Your task to perform on an android device: create a new album in the google photos Image 0: 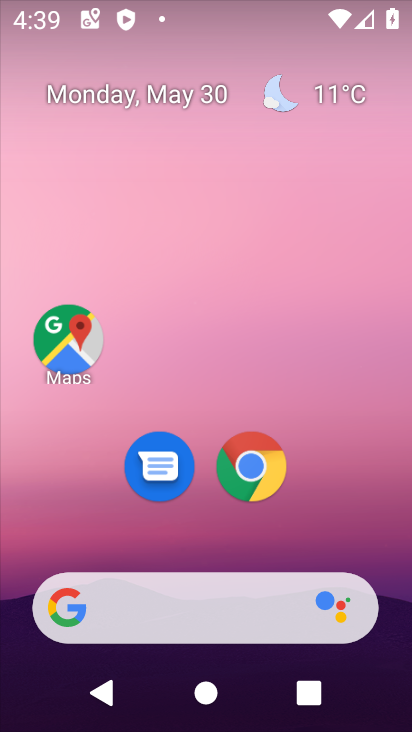
Step 0: drag from (349, 513) to (293, 78)
Your task to perform on an android device: create a new album in the google photos Image 1: 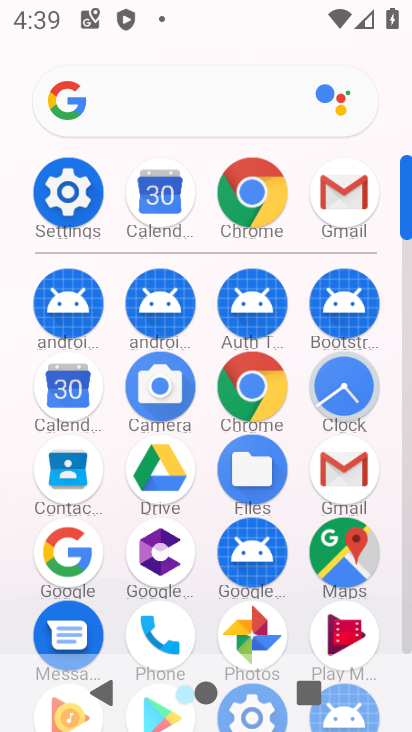
Step 1: click (261, 624)
Your task to perform on an android device: create a new album in the google photos Image 2: 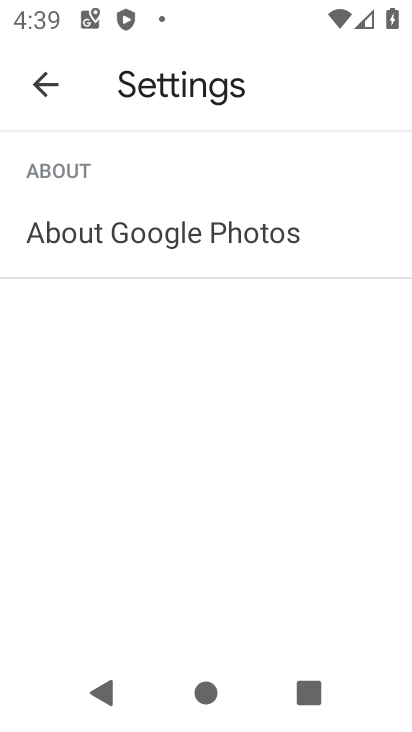
Step 2: click (60, 77)
Your task to perform on an android device: create a new album in the google photos Image 3: 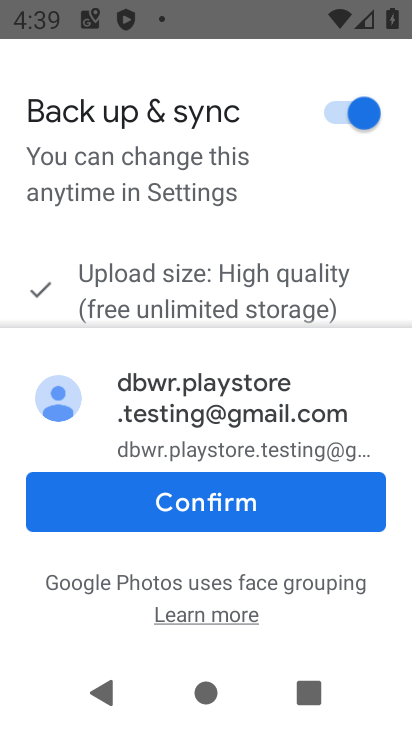
Step 3: click (248, 515)
Your task to perform on an android device: create a new album in the google photos Image 4: 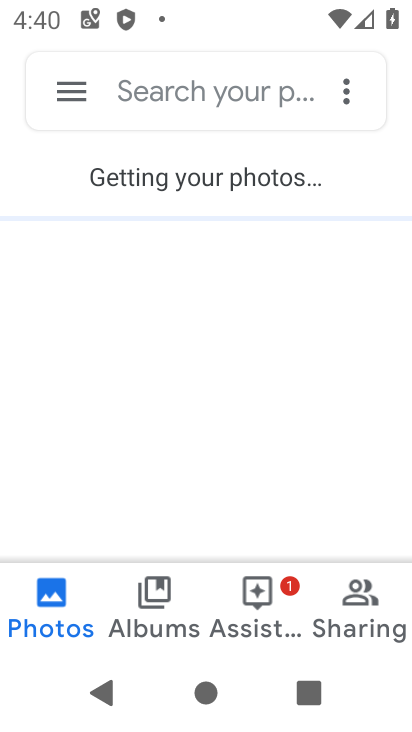
Step 4: click (158, 610)
Your task to perform on an android device: create a new album in the google photos Image 5: 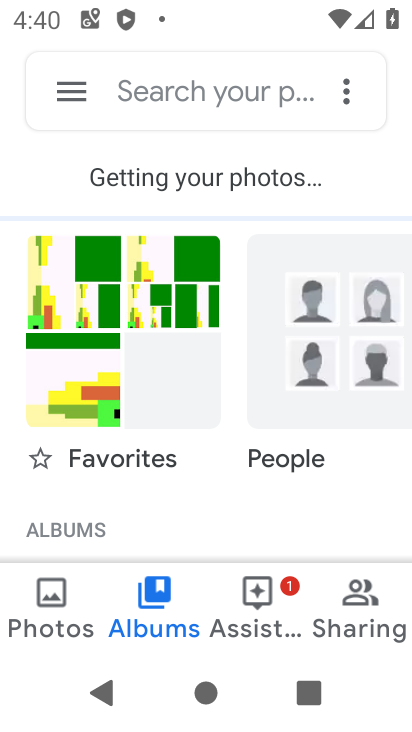
Step 5: click (359, 89)
Your task to perform on an android device: create a new album in the google photos Image 6: 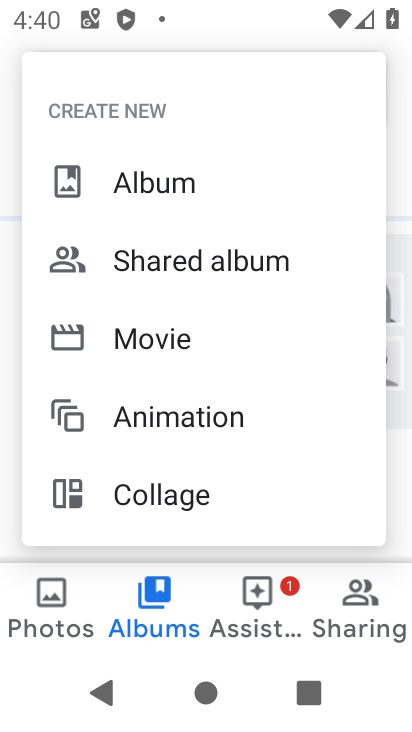
Step 6: click (165, 184)
Your task to perform on an android device: create a new album in the google photos Image 7: 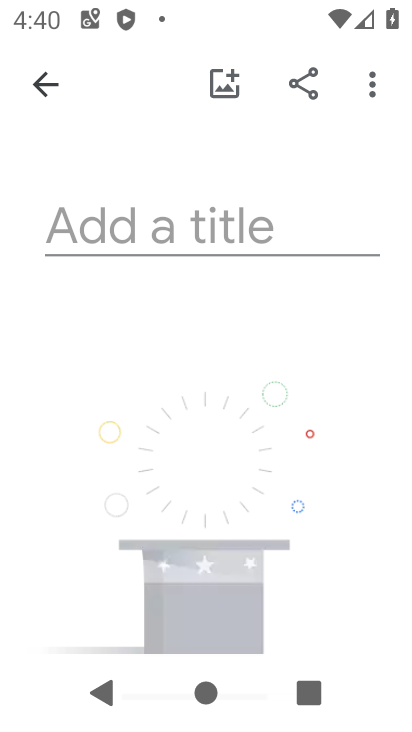
Step 7: click (185, 240)
Your task to perform on an android device: create a new album in the google photos Image 8: 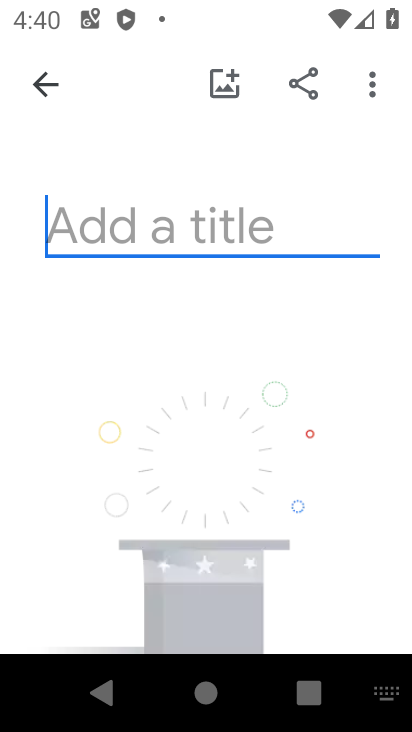
Step 8: type "evony"
Your task to perform on an android device: create a new album in the google photos Image 9: 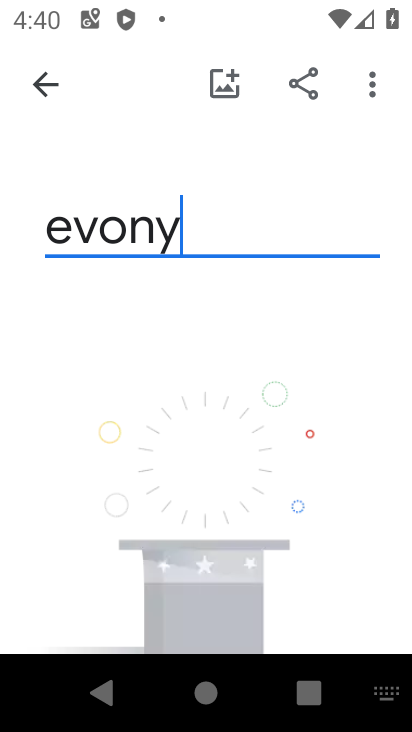
Step 9: drag from (231, 471) to (290, 106)
Your task to perform on an android device: create a new album in the google photos Image 10: 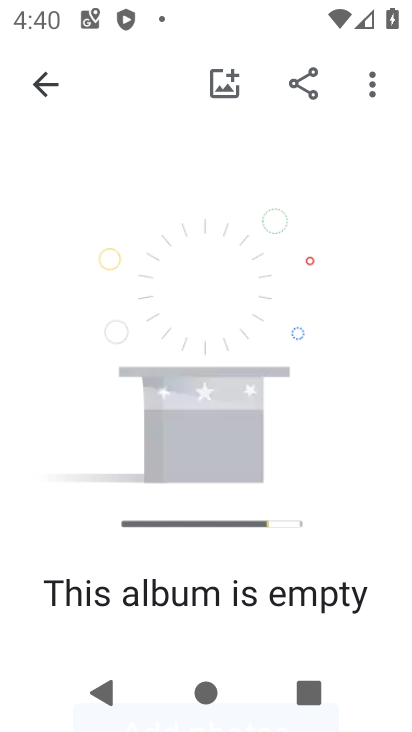
Step 10: drag from (282, 454) to (304, 127)
Your task to perform on an android device: create a new album in the google photos Image 11: 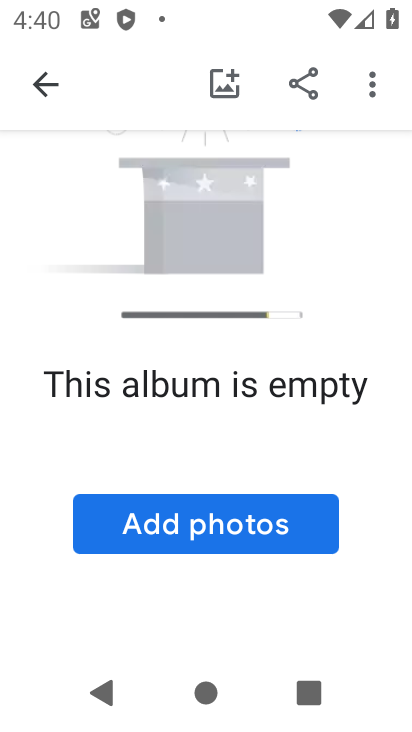
Step 11: click (205, 515)
Your task to perform on an android device: create a new album in the google photos Image 12: 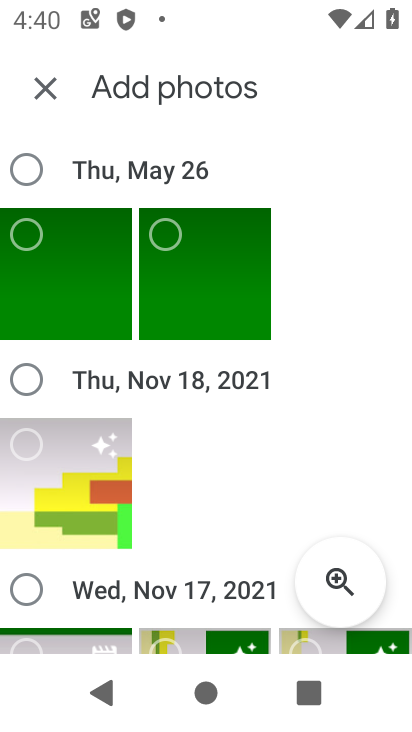
Step 12: click (57, 442)
Your task to perform on an android device: create a new album in the google photos Image 13: 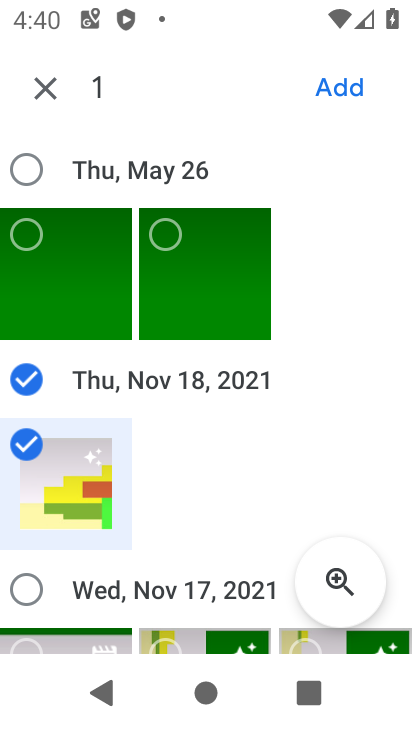
Step 13: click (333, 91)
Your task to perform on an android device: create a new album in the google photos Image 14: 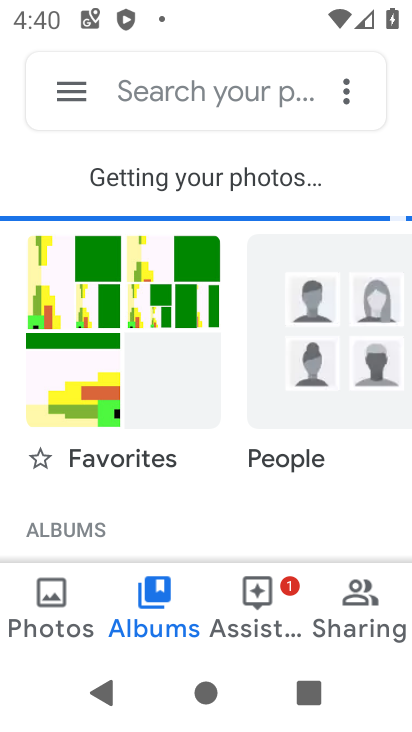
Step 14: task complete